Your task to perform on an android device: Open Chrome and go to the settings page Image 0: 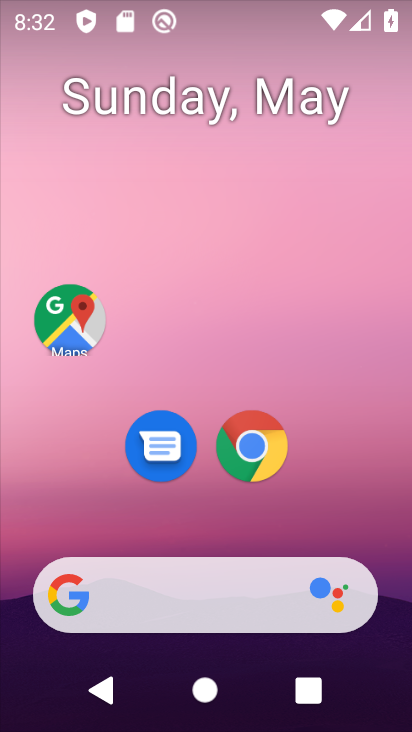
Step 0: click (251, 457)
Your task to perform on an android device: Open Chrome and go to the settings page Image 1: 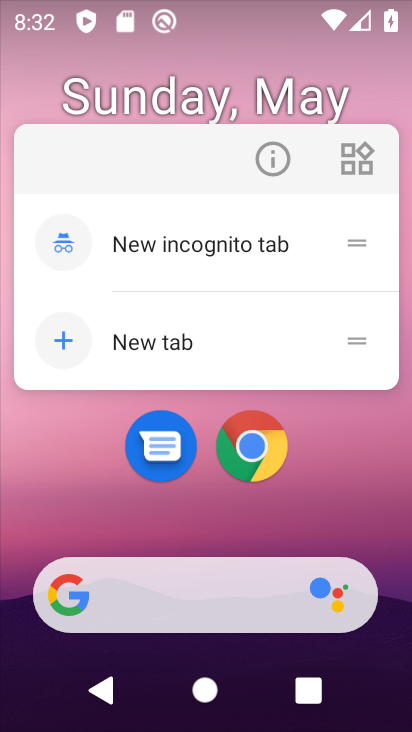
Step 1: click (268, 426)
Your task to perform on an android device: Open Chrome and go to the settings page Image 2: 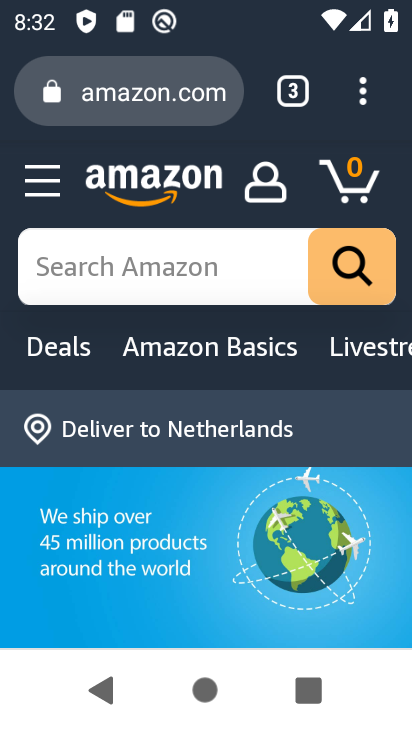
Step 2: task complete